Your task to perform on an android device: all mails in gmail Image 0: 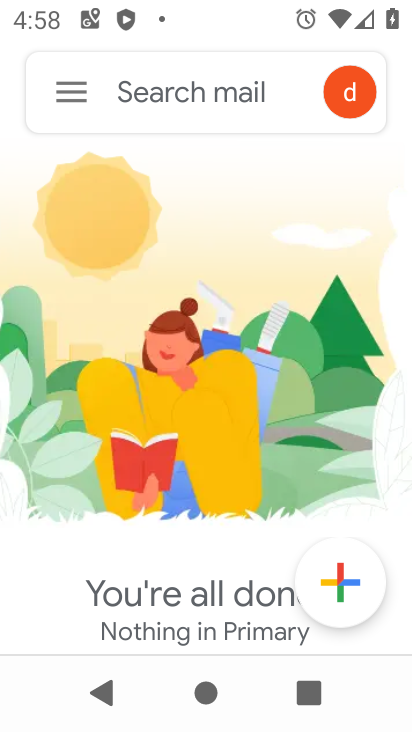
Step 0: click (49, 105)
Your task to perform on an android device: all mails in gmail Image 1: 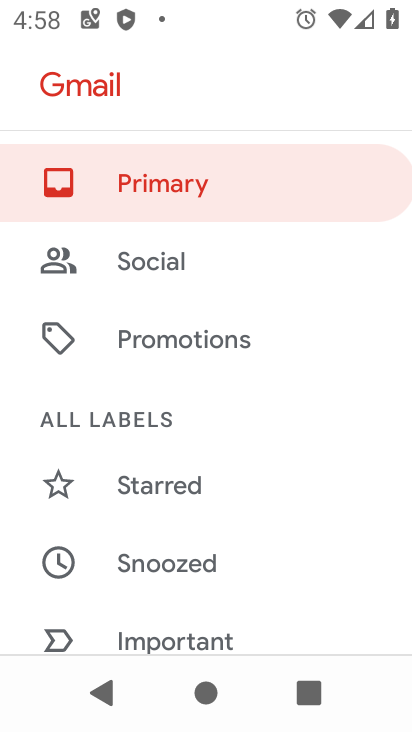
Step 1: drag from (294, 477) to (254, 107)
Your task to perform on an android device: all mails in gmail Image 2: 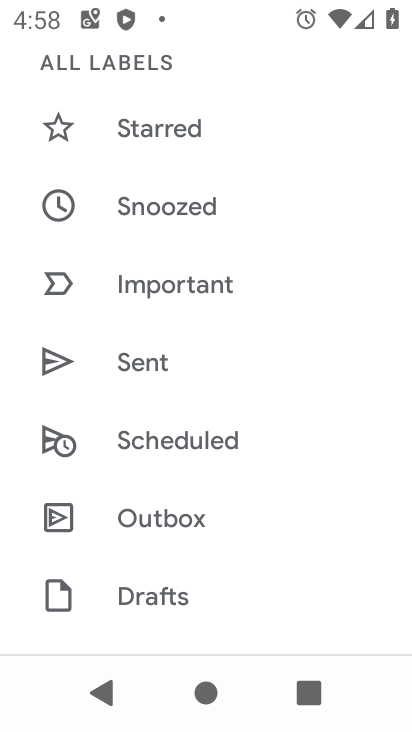
Step 2: drag from (214, 412) to (197, 41)
Your task to perform on an android device: all mails in gmail Image 3: 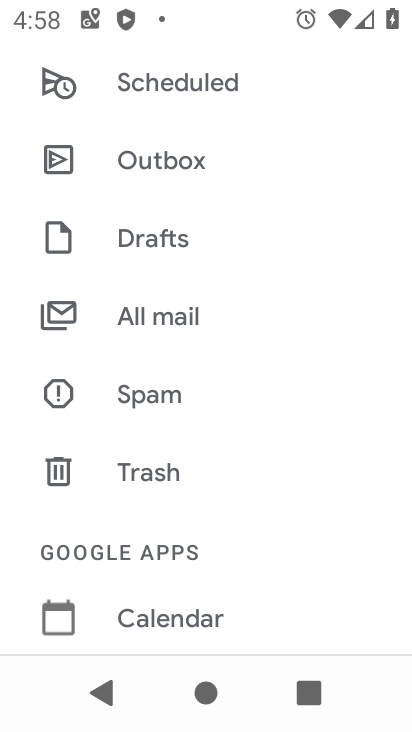
Step 3: click (174, 324)
Your task to perform on an android device: all mails in gmail Image 4: 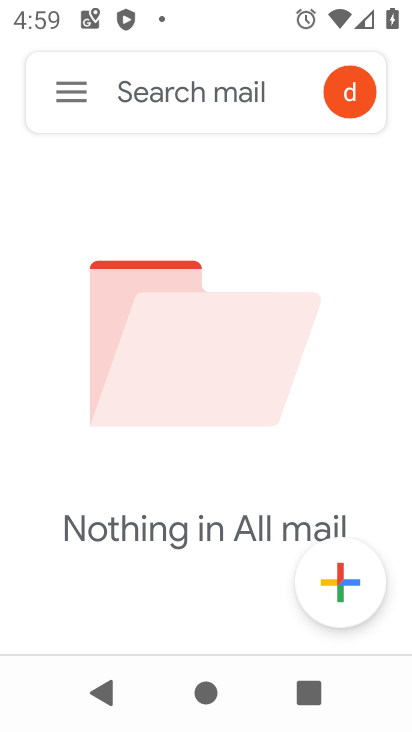
Step 4: task complete